Your task to perform on an android device: Is it going to rain tomorrow? Image 0: 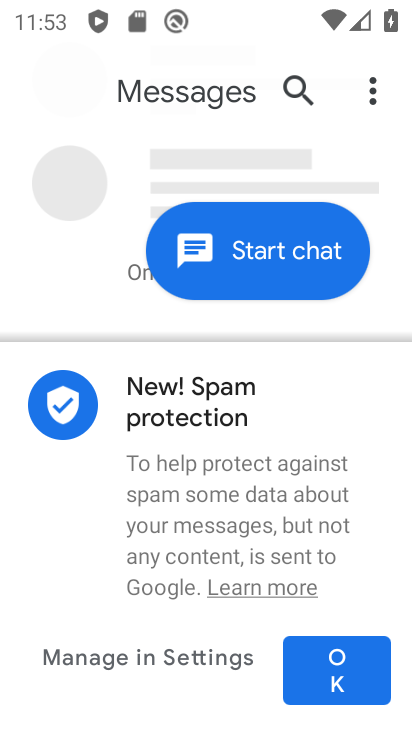
Step 0: press home button
Your task to perform on an android device: Is it going to rain tomorrow? Image 1: 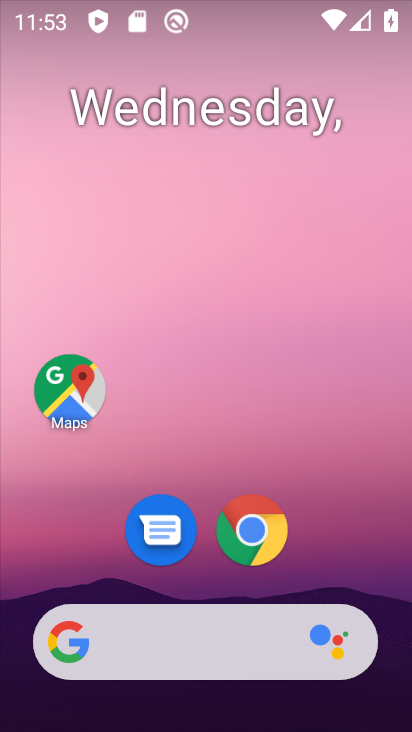
Step 1: drag from (17, 259) to (374, 225)
Your task to perform on an android device: Is it going to rain tomorrow? Image 2: 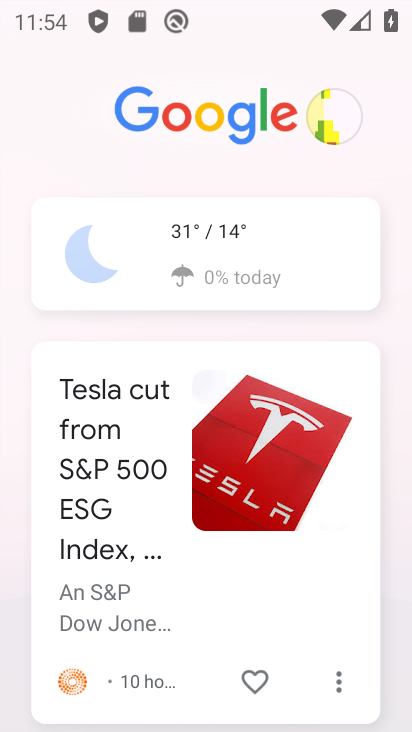
Step 2: click (154, 256)
Your task to perform on an android device: Is it going to rain tomorrow? Image 3: 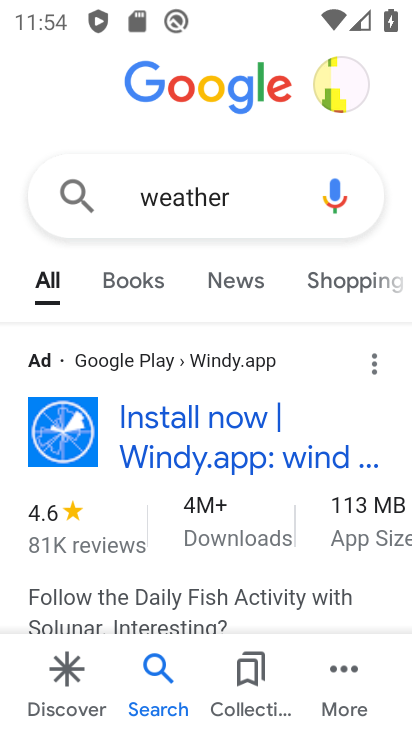
Step 3: drag from (212, 539) to (174, 6)
Your task to perform on an android device: Is it going to rain tomorrow? Image 4: 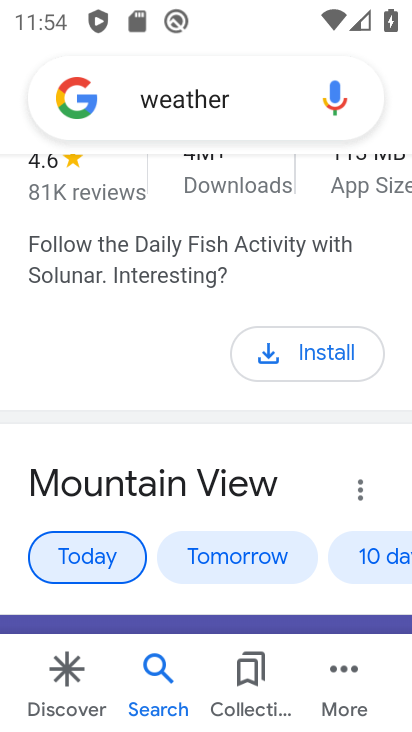
Step 4: click (223, 566)
Your task to perform on an android device: Is it going to rain tomorrow? Image 5: 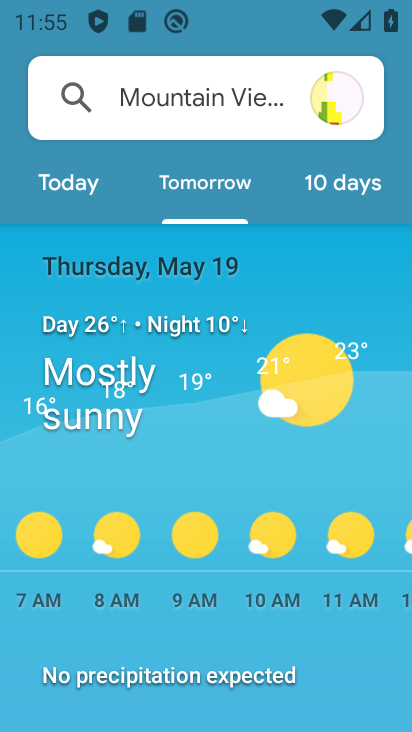
Step 5: task complete